Your task to perform on an android device: turn notification dots off Image 0: 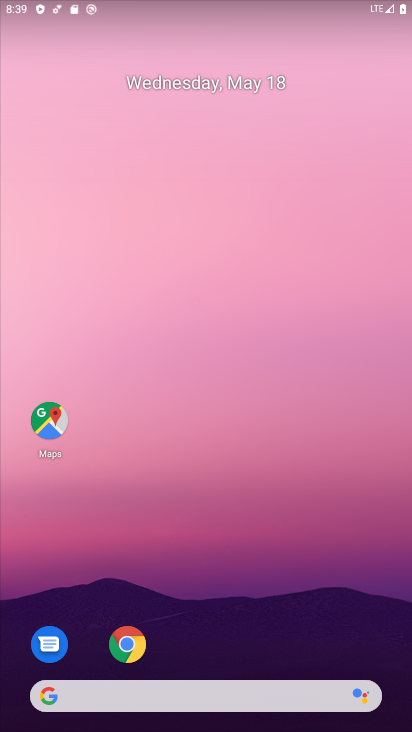
Step 0: drag from (178, 400) to (222, 23)
Your task to perform on an android device: turn notification dots off Image 1: 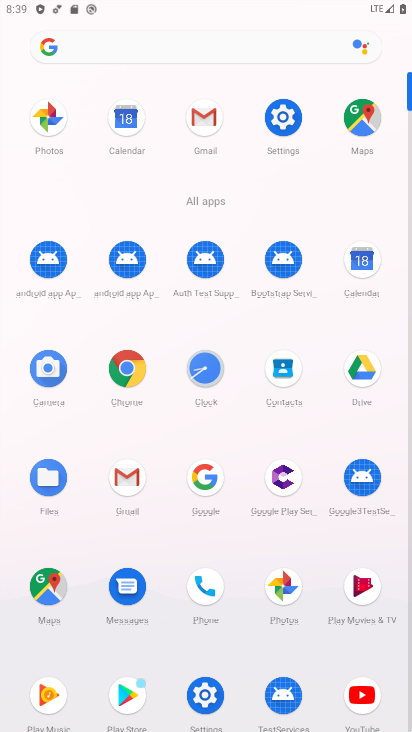
Step 1: click (272, 109)
Your task to perform on an android device: turn notification dots off Image 2: 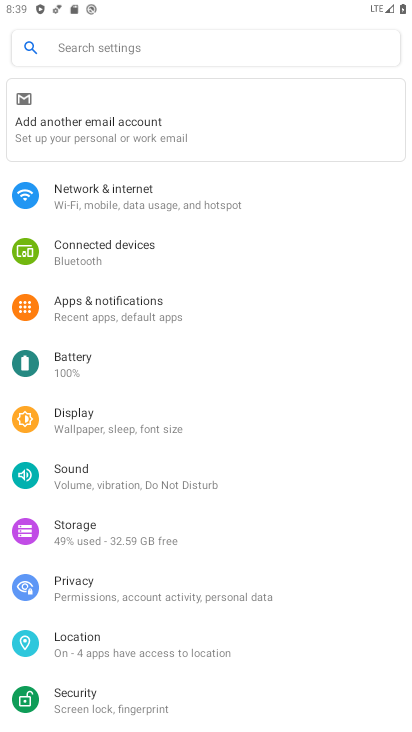
Step 2: click (135, 321)
Your task to perform on an android device: turn notification dots off Image 3: 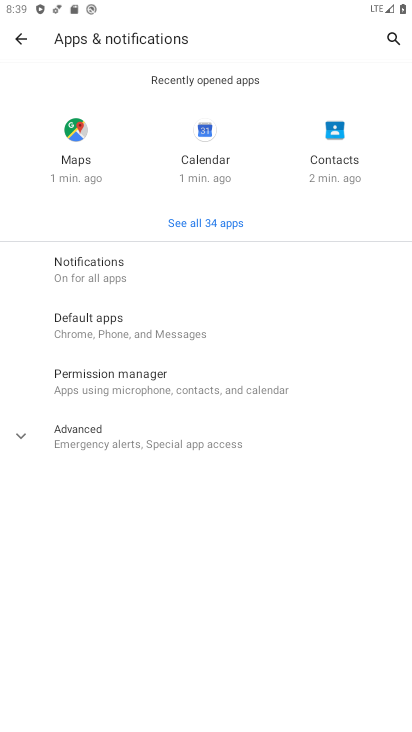
Step 3: click (132, 281)
Your task to perform on an android device: turn notification dots off Image 4: 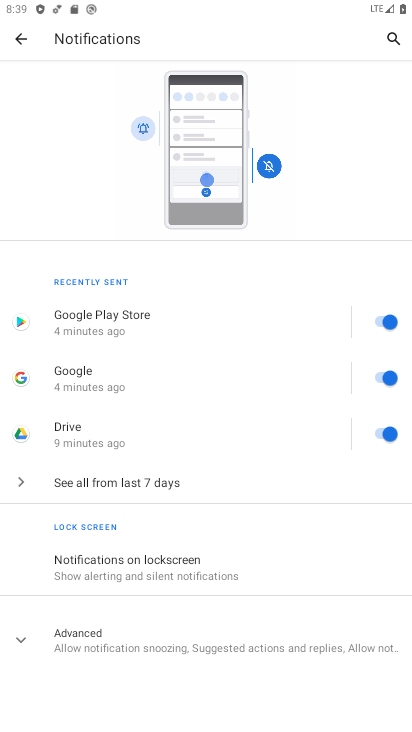
Step 4: click (128, 641)
Your task to perform on an android device: turn notification dots off Image 5: 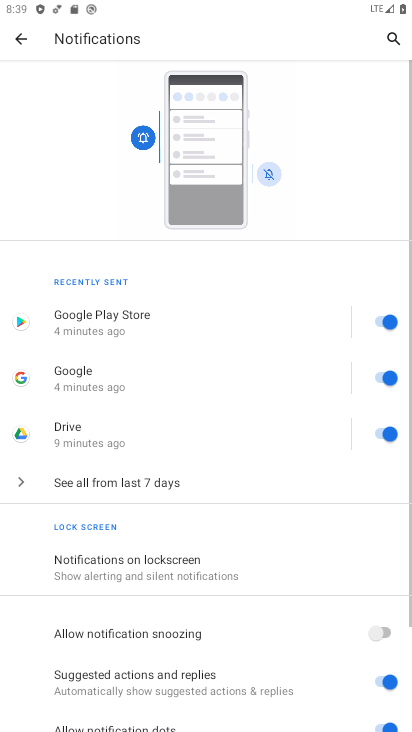
Step 5: drag from (223, 611) to (317, 224)
Your task to perform on an android device: turn notification dots off Image 6: 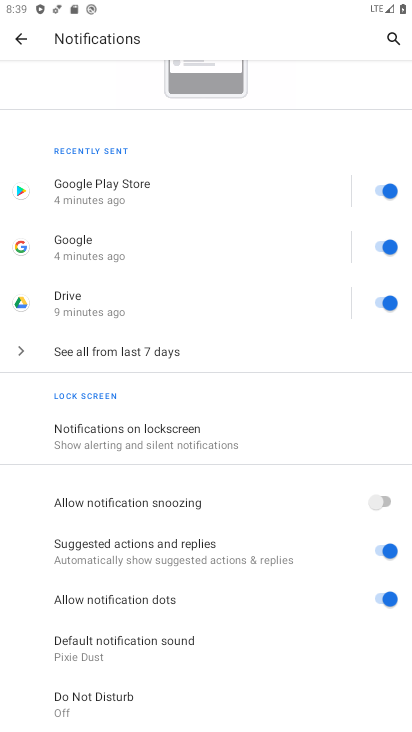
Step 6: click (387, 600)
Your task to perform on an android device: turn notification dots off Image 7: 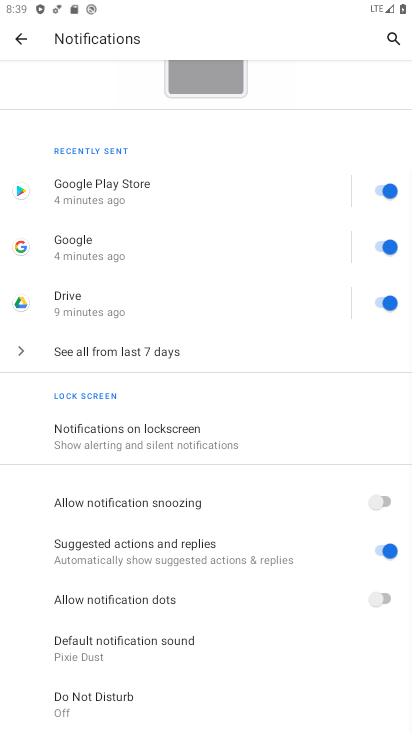
Step 7: task complete